Your task to perform on an android device: Open Yahoo.com Image 0: 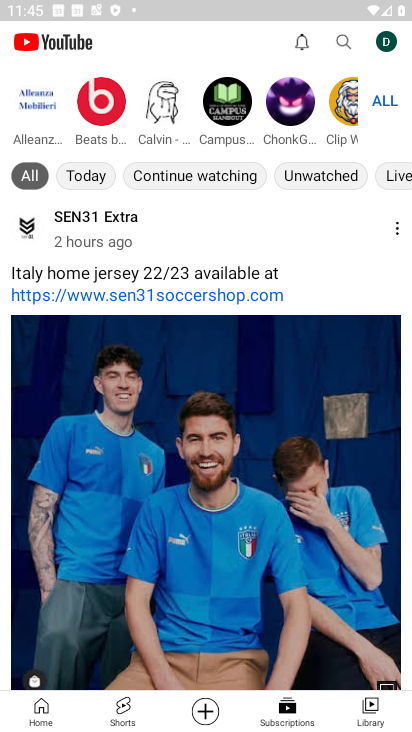
Step 0: press home button
Your task to perform on an android device: Open Yahoo.com Image 1: 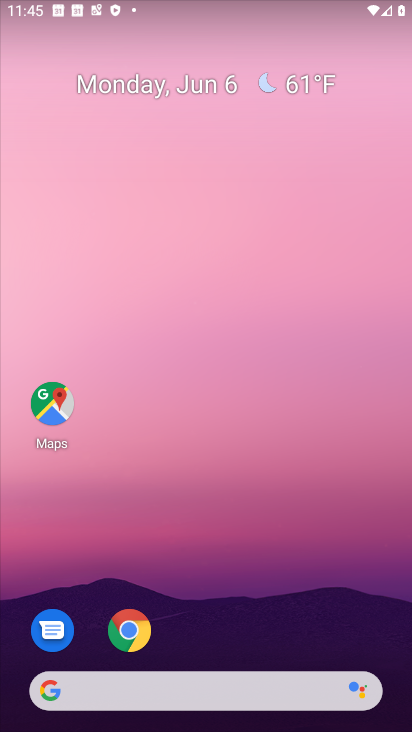
Step 1: drag from (346, 601) to (327, 166)
Your task to perform on an android device: Open Yahoo.com Image 2: 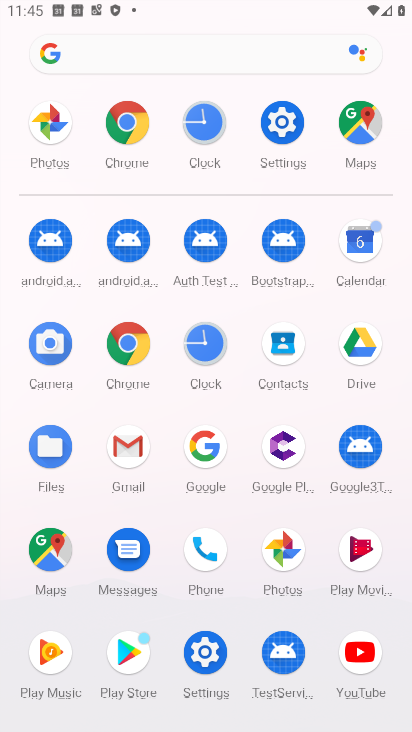
Step 2: click (111, 366)
Your task to perform on an android device: Open Yahoo.com Image 3: 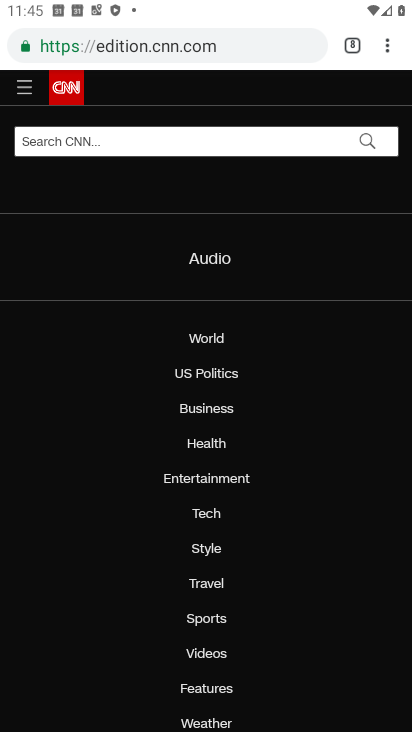
Step 3: click (348, 48)
Your task to perform on an android device: Open Yahoo.com Image 4: 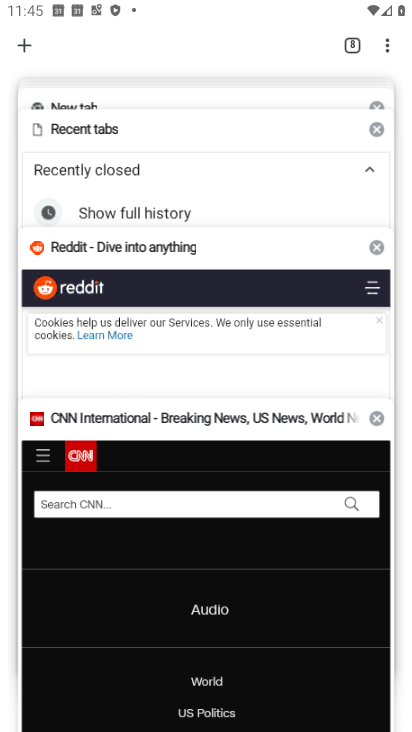
Step 4: click (26, 43)
Your task to perform on an android device: Open Yahoo.com Image 5: 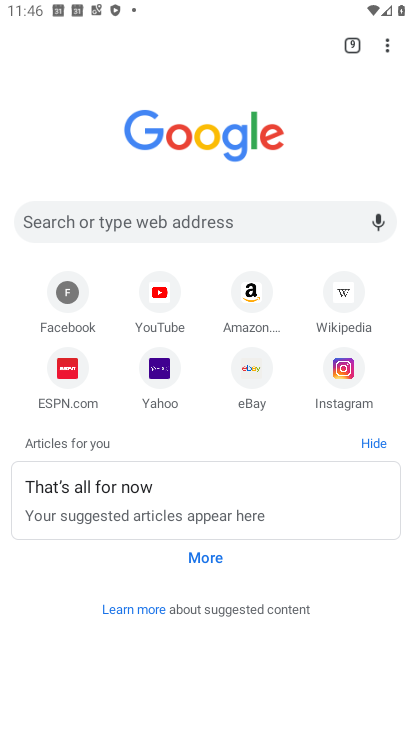
Step 5: click (156, 371)
Your task to perform on an android device: Open Yahoo.com Image 6: 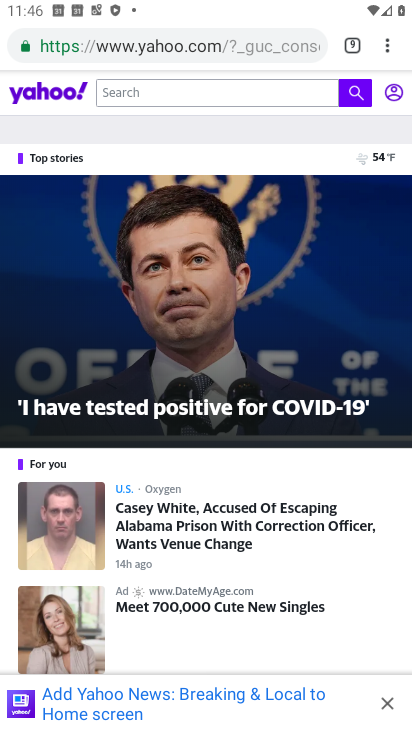
Step 6: task complete